Your task to perform on an android device: choose inbox layout in the gmail app Image 0: 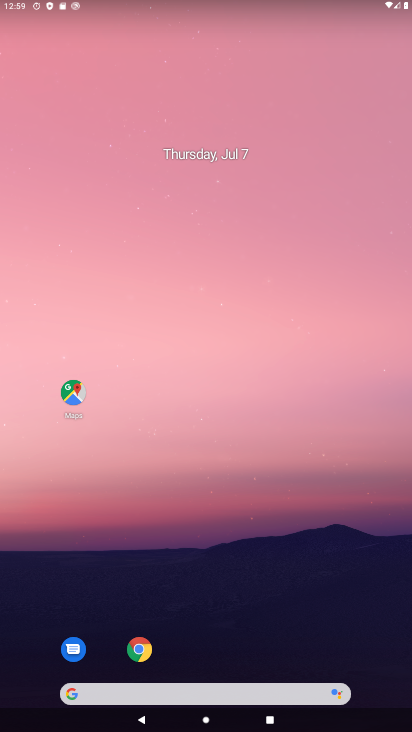
Step 0: drag from (215, 662) to (262, 69)
Your task to perform on an android device: choose inbox layout in the gmail app Image 1: 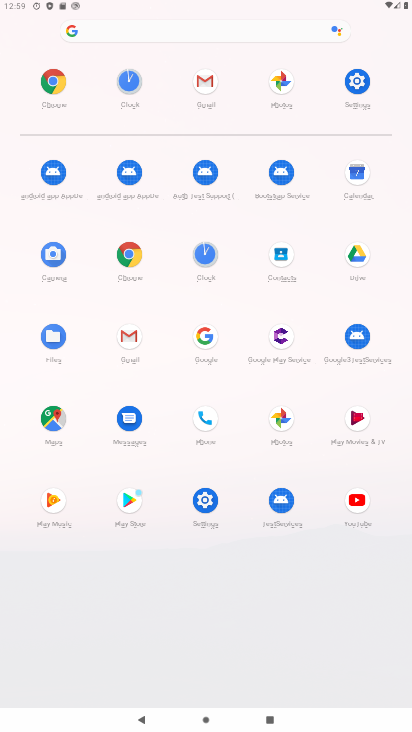
Step 1: click (124, 341)
Your task to perform on an android device: choose inbox layout in the gmail app Image 2: 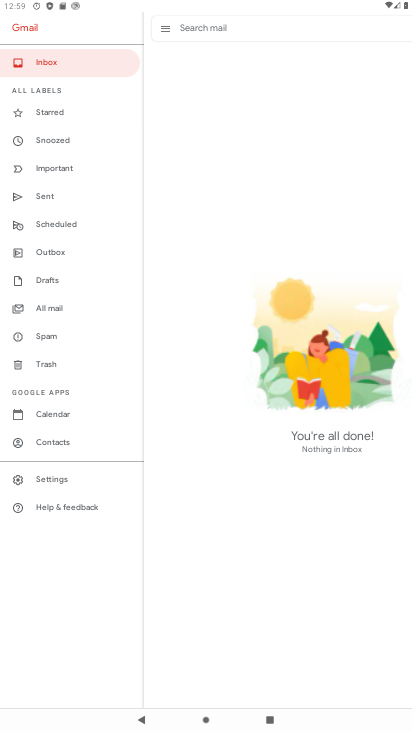
Step 2: click (79, 54)
Your task to perform on an android device: choose inbox layout in the gmail app Image 3: 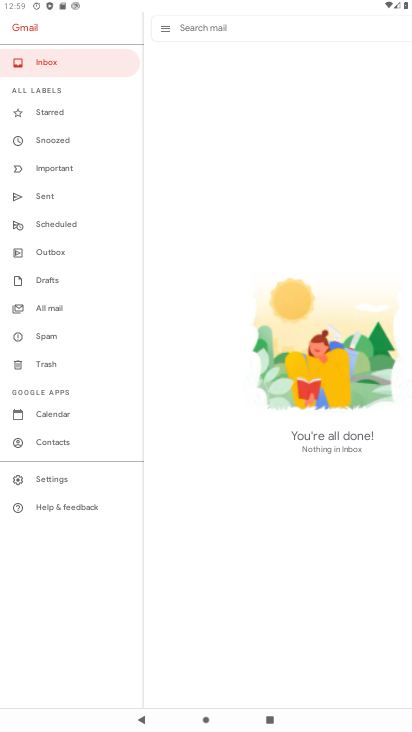
Step 3: task complete